Your task to perform on an android device: toggle improve location accuracy Image 0: 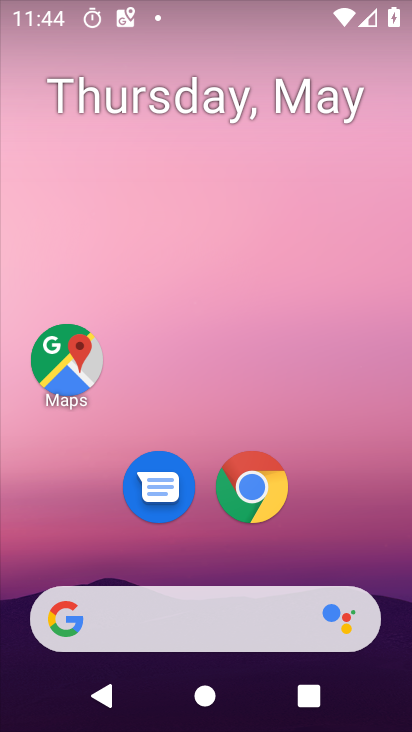
Step 0: drag from (317, 344) to (312, 90)
Your task to perform on an android device: toggle improve location accuracy Image 1: 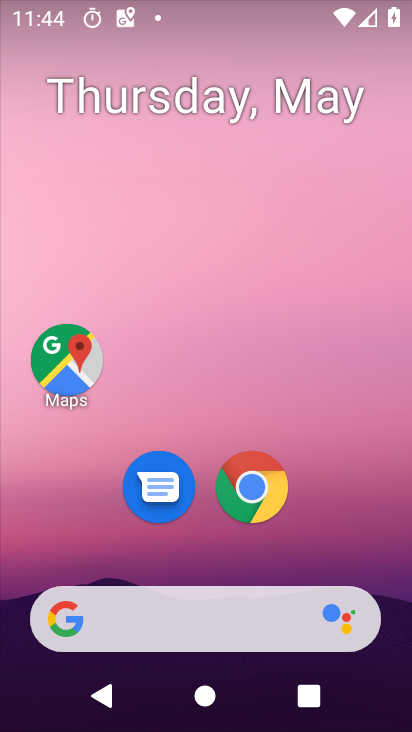
Step 1: drag from (330, 557) to (289, 166)
Your task to perform on an android device: toggle improve location accuracy Image 2: 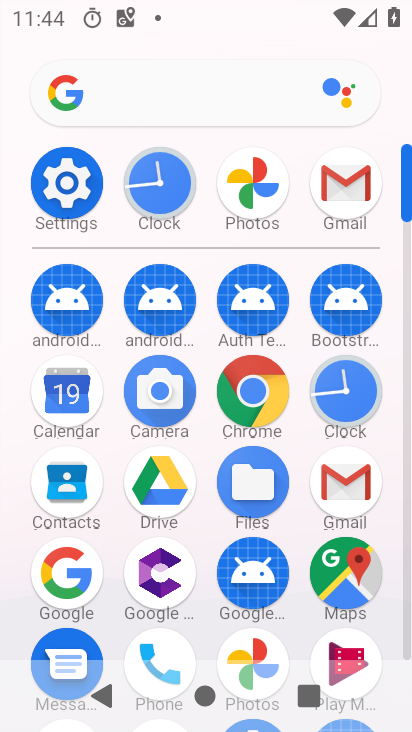
Step 2: click (49, 177)
Your task to perform on an android device: toggle improve location accuracy Image 3: 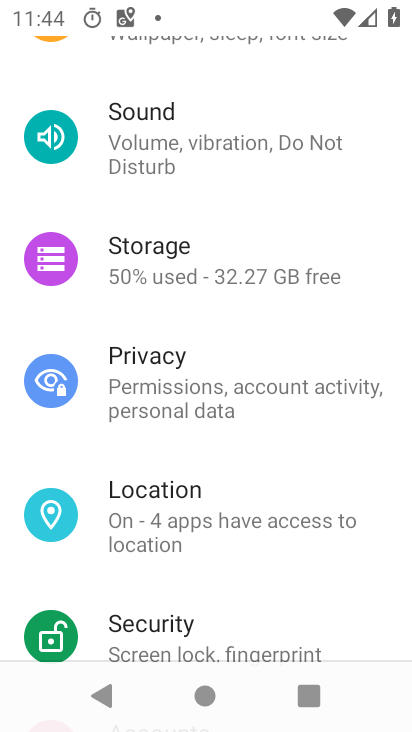
Step 3: click (223, 507)
Your task to perform on an android device: toggle improve location accuracy Image 4: 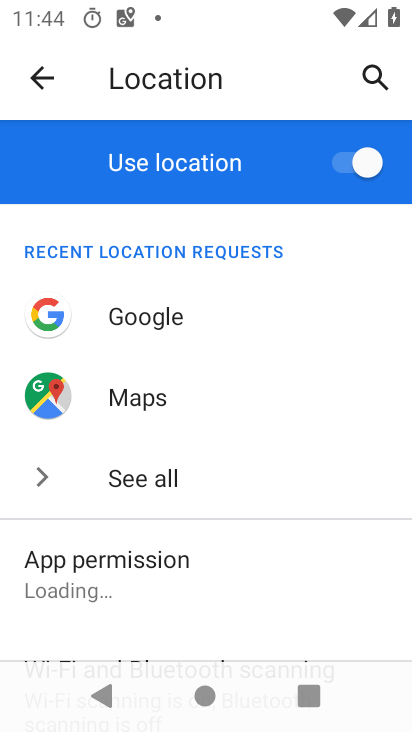
Step 4: drag from (317, 567) to (273, 260)
Your task to perform on an android device: toggle improve location accuracy Image 5: 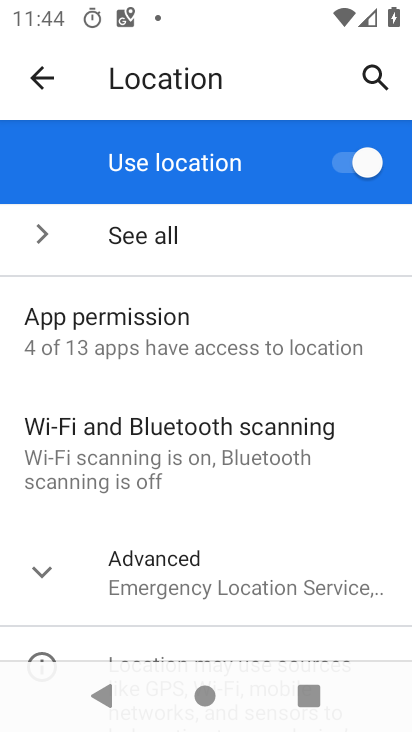
Step 5: click (244, 581)
Your task to perform on an android device: toggle improve location accuracy Image 6: 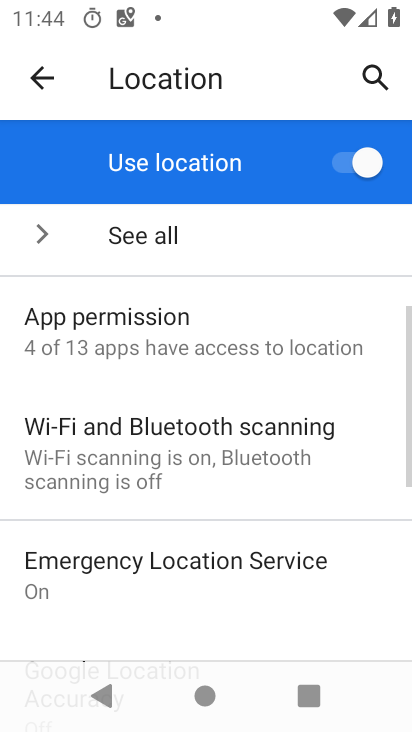
Step 6: drag from (249, 583) to (246, 337)
Your task to perform on an android device: toggle improve location accuracy Image 7: 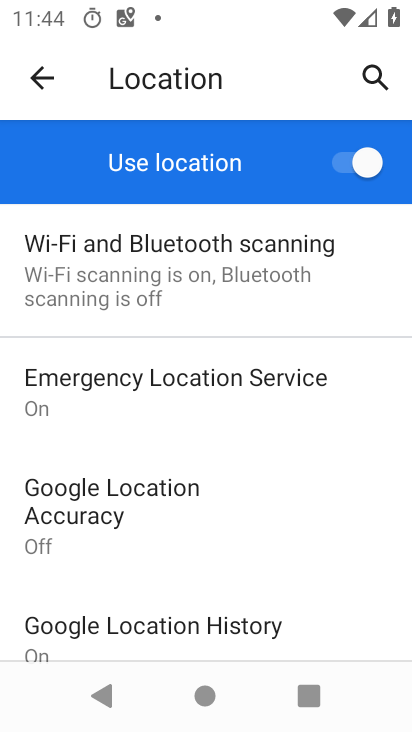
Step 7: click (116, 517)
Your task to perform on an android device: toggle improve location accuracy Image 8: 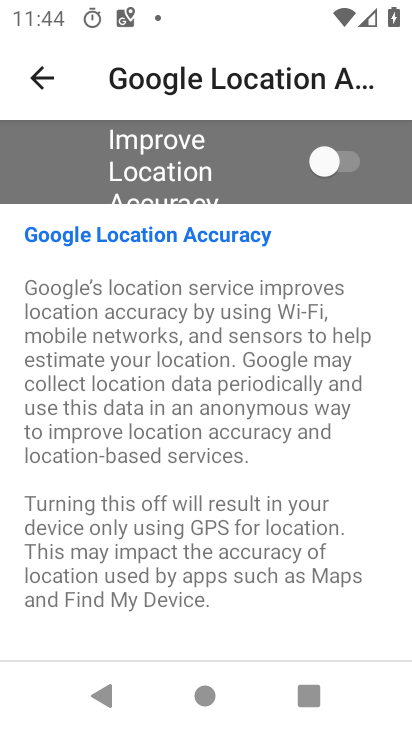
Step 8: click (346, 164)
Your task to perform on an android device: toggle improve location accuracy Image 9: 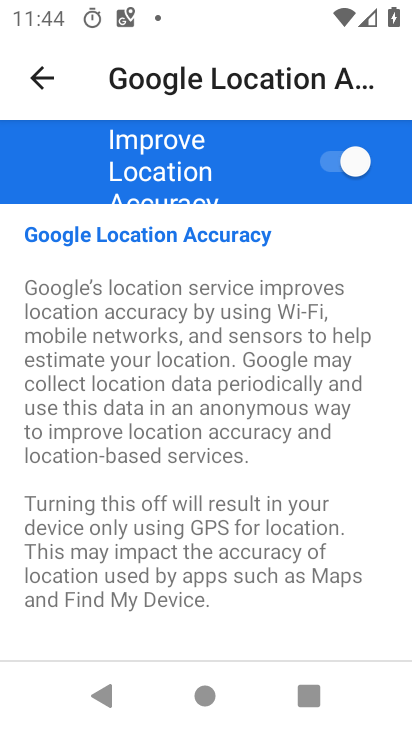
Step 9: task complete